Your task to perform on an android device: What is the recent news? Image 0: 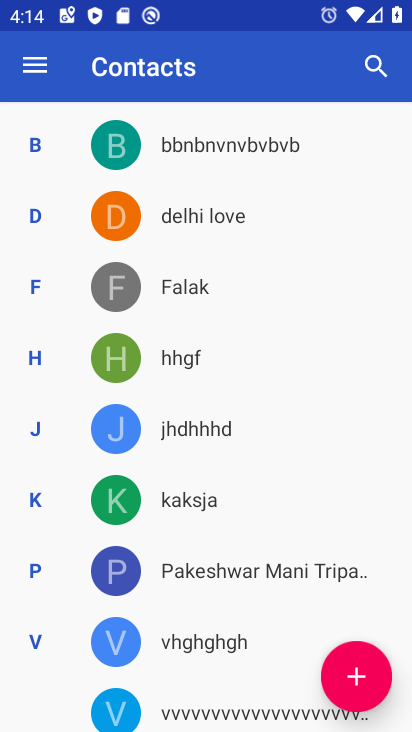
Step 0: press home button
Your task to perform on an android device: What is the recent news? Image 1: 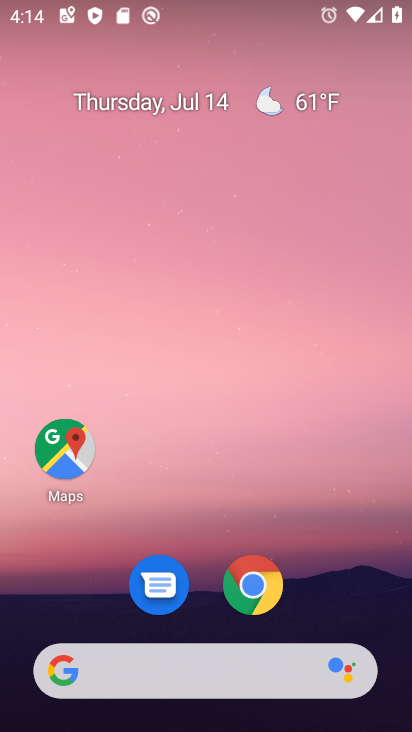
Step 1: click (243, 672)
Your task to perform on an android device: What is the recent news? Image 2: 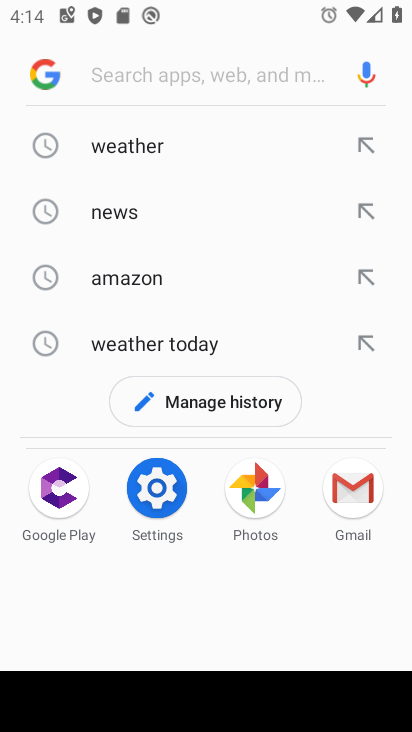
Step 2: click (132, 215)
Your task to perform on an android device: What is the recent news? Image 3: 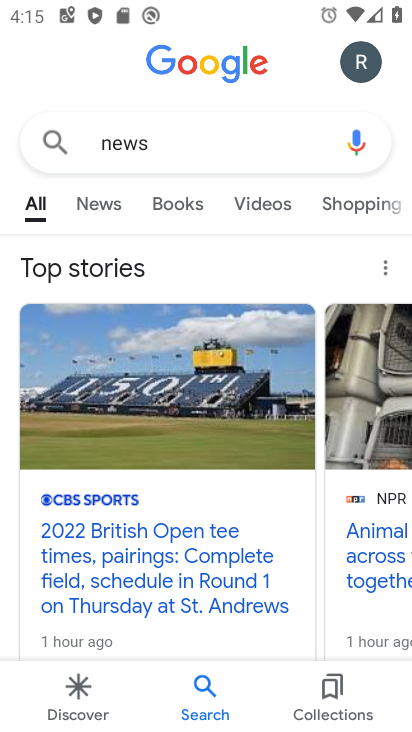
Step 3: task complete